Your task to perform on an android device: open app "Google Home" (install if not already installed) Image 0: 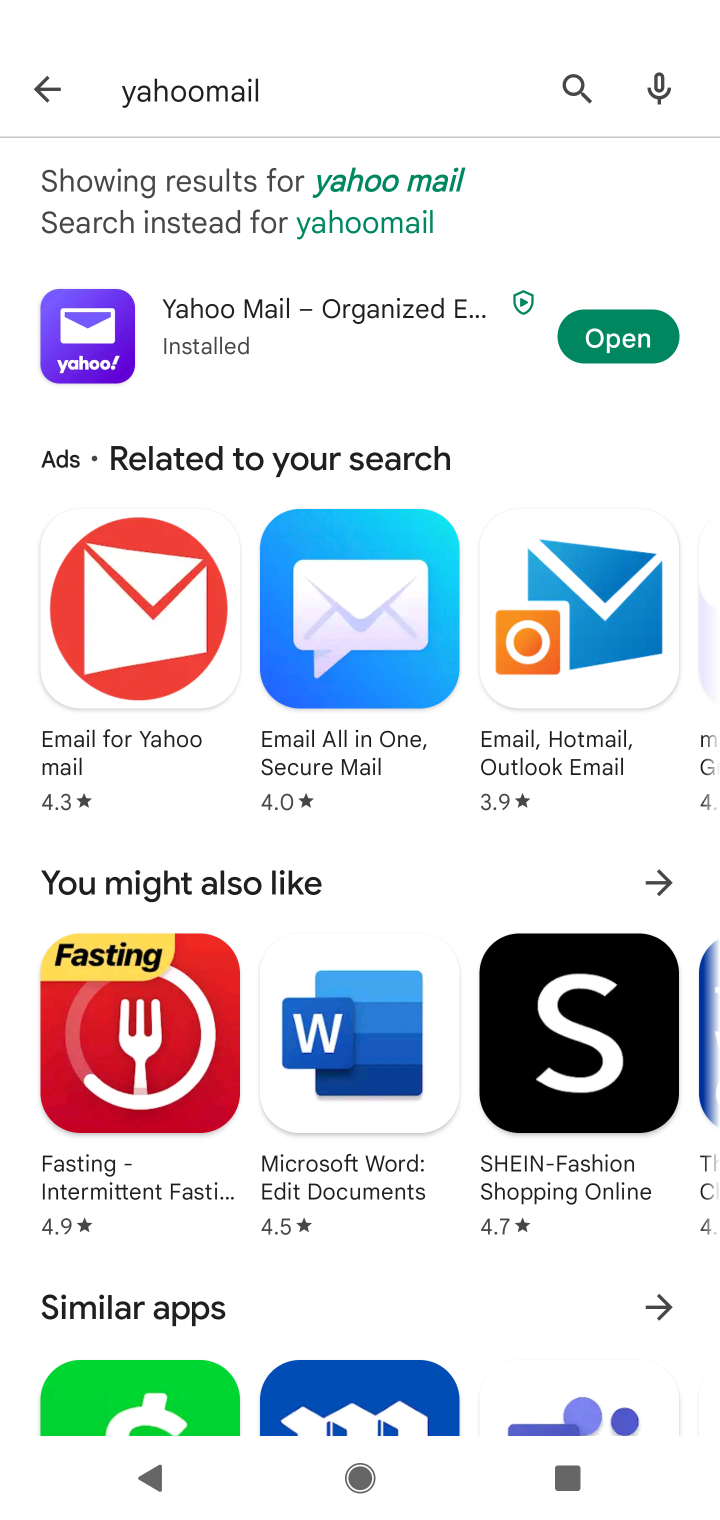
Step 0: click (513, 81)
Your task to perform on an android device: open app "Google Home" (install if not already installed) Image 1: 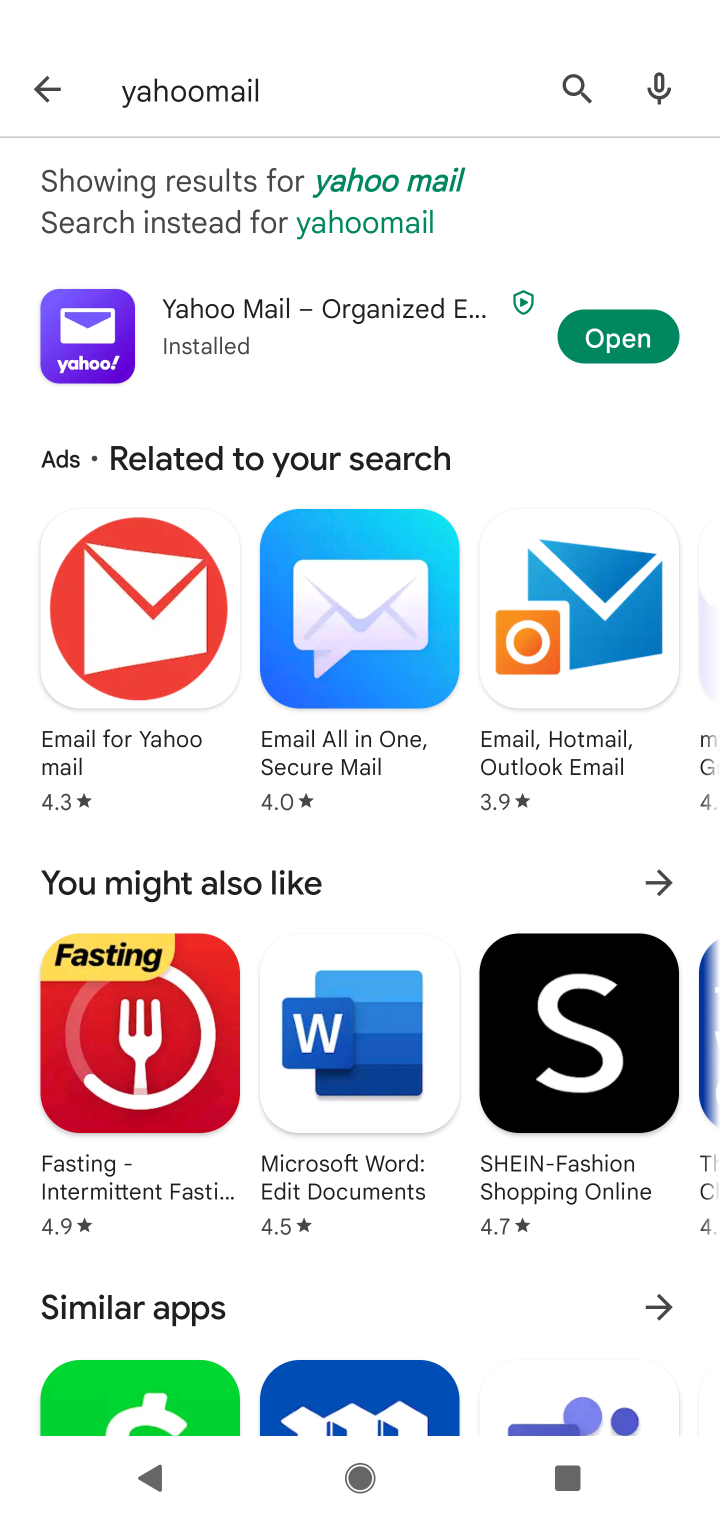
Step 1: click (544, 81)
Your task to perform on an android device: open app "Google Home" (install if not already installed) Image 2: 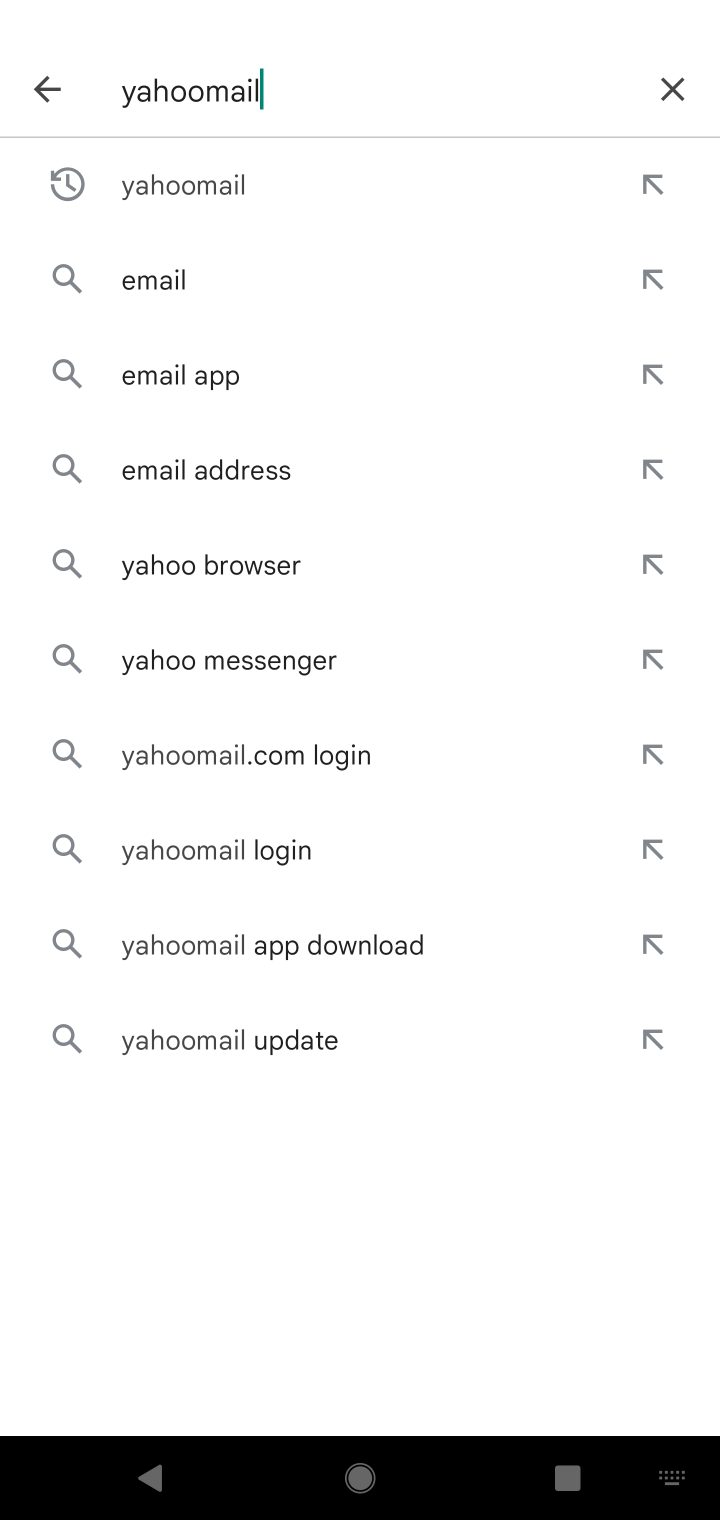
Step 2: click (569, 86)
Your task to perform on an android device: open app "Google Home" (install if not already installed) Image 3: 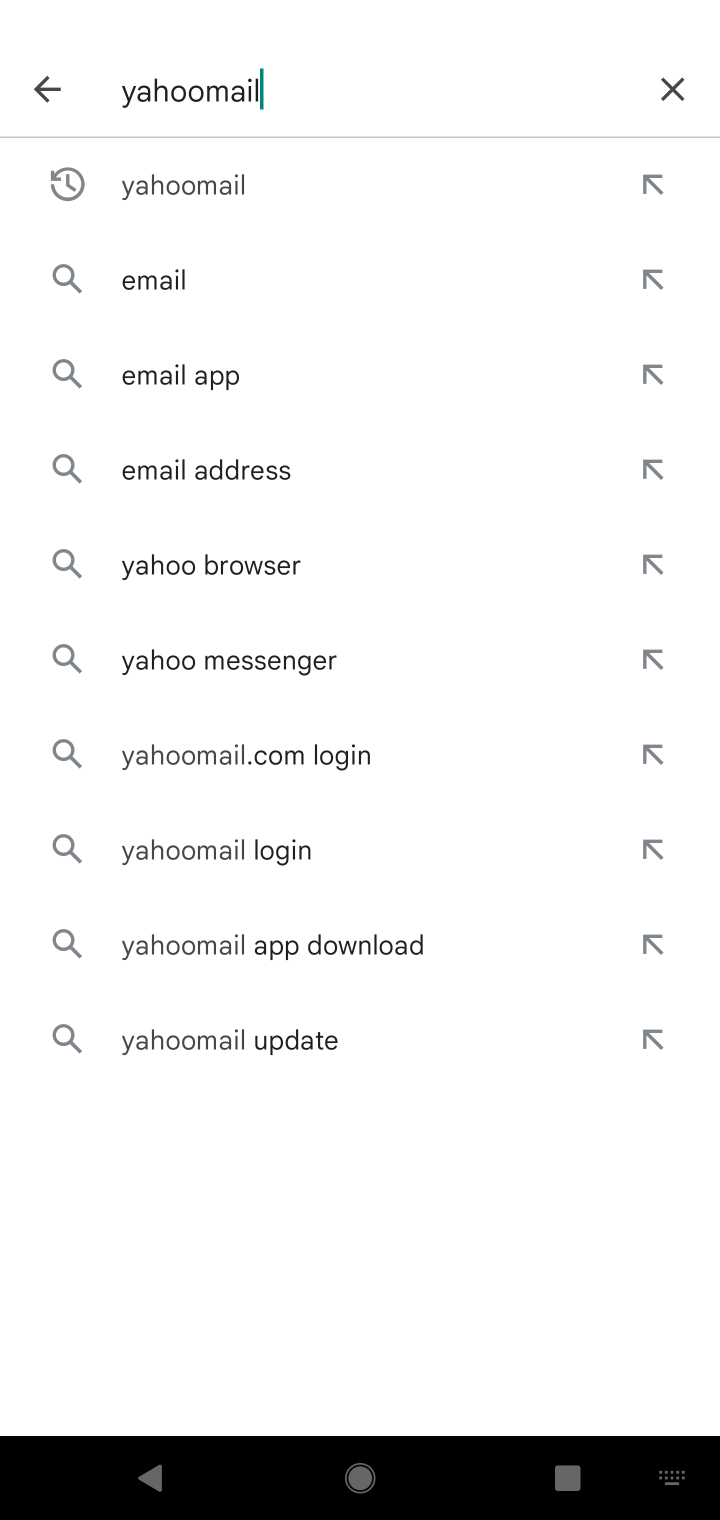
Step 3: click (654, 108)
Your task to perform on an android device: open app "Google Home" (install if not already installed) Image 4: 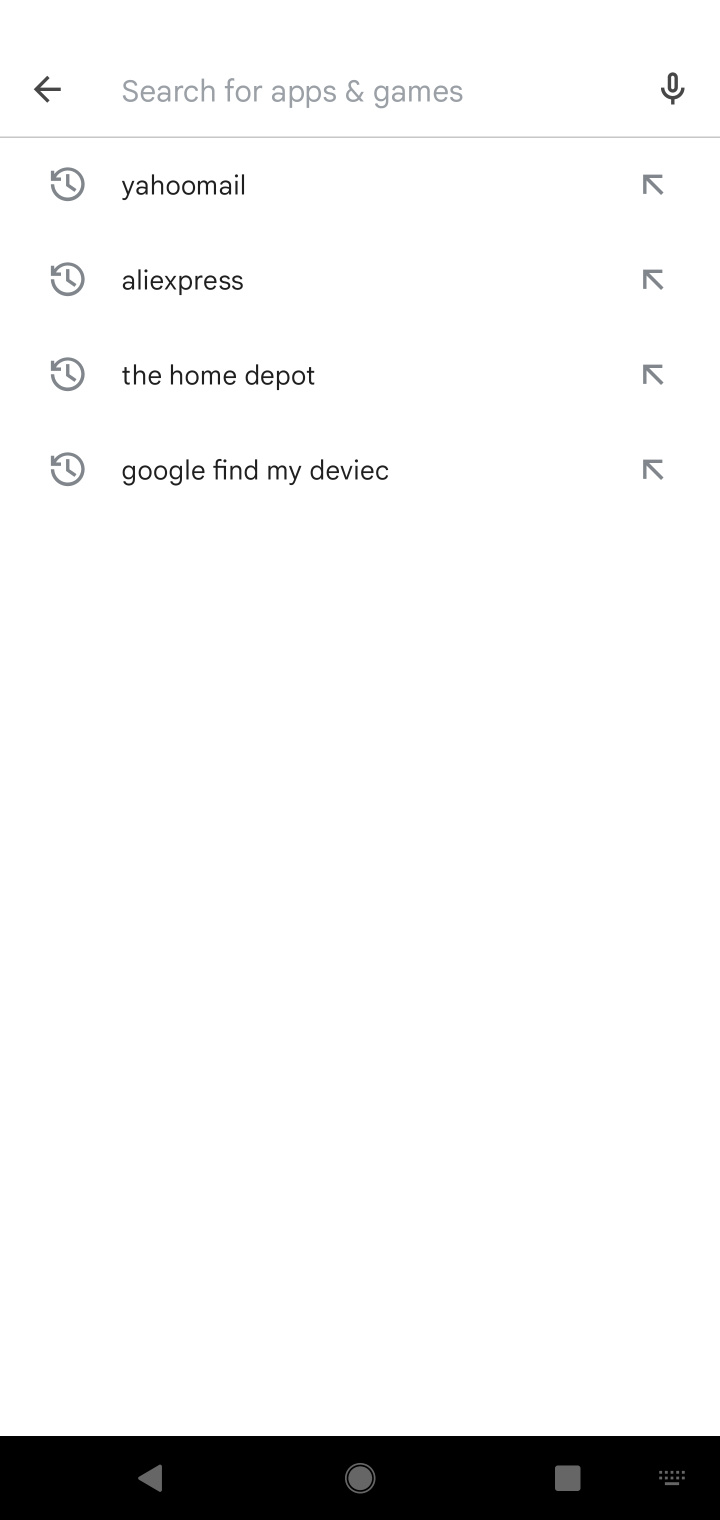
Step 4: type "google home"
Your task to perform on an android device: open app "Google Home" (install if not already installed) Image 5: 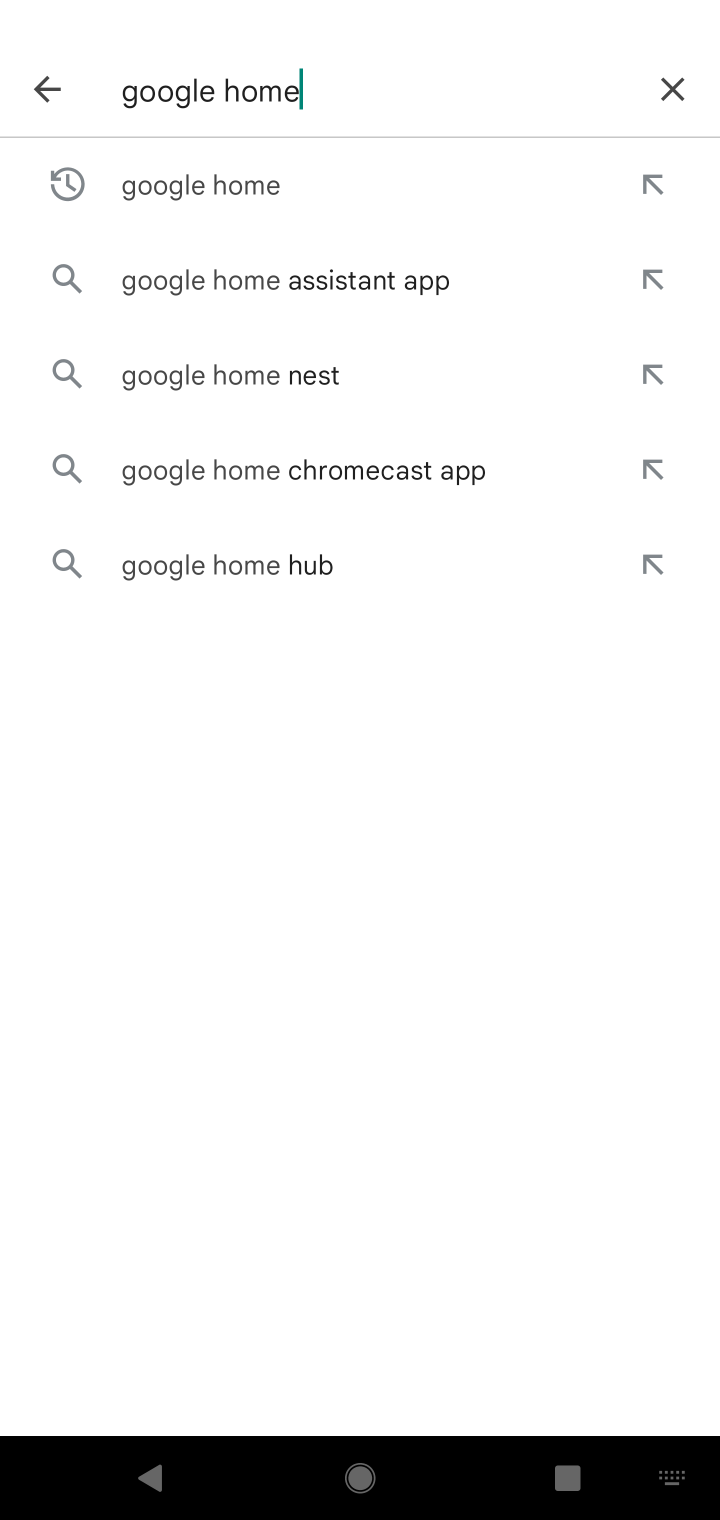
Step 5: click (301, 200)
Your task to perform on an android device: open app "Google Home" (install if not already installed) Image 6: 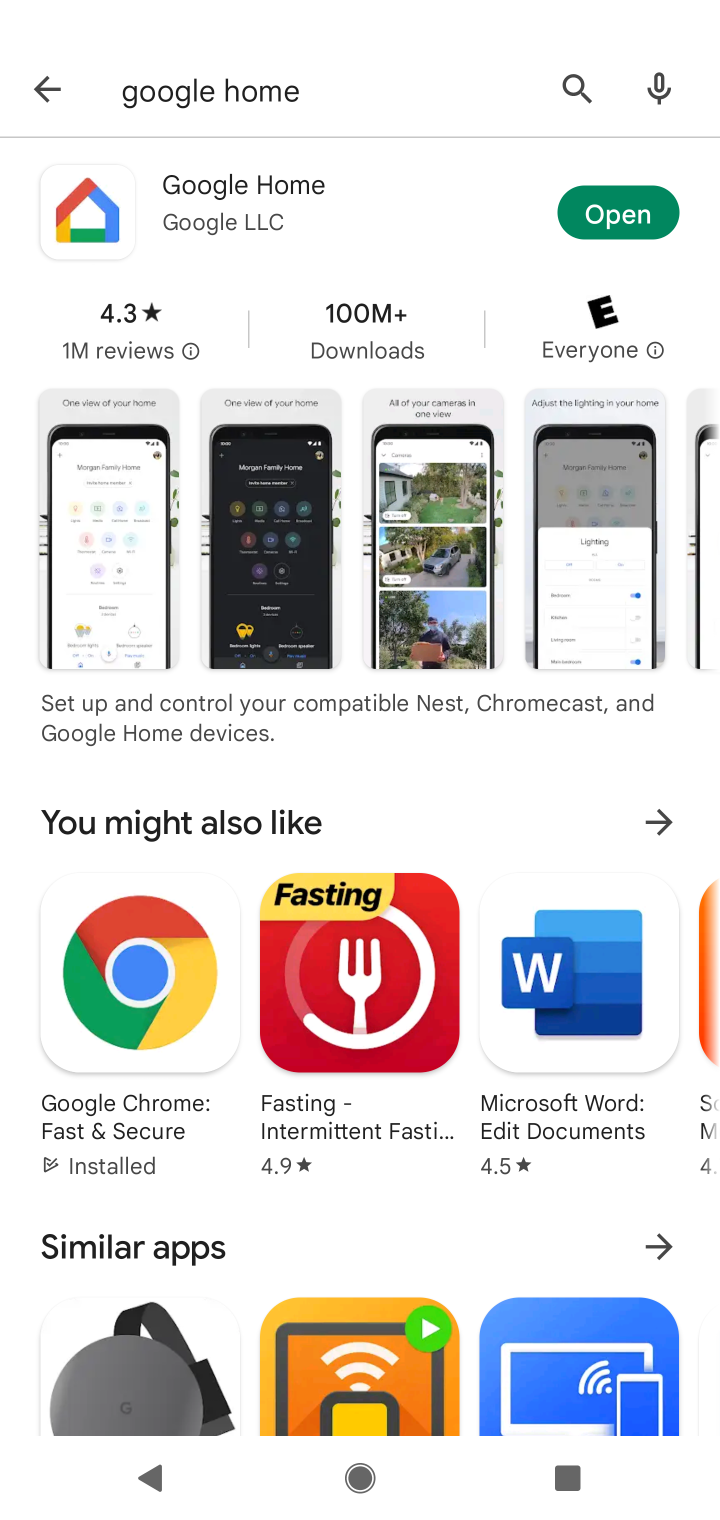
Step 6: click (620, 208)
Your task to perform on an android device: open app "Google Home" (install if not already installed) Image 7: 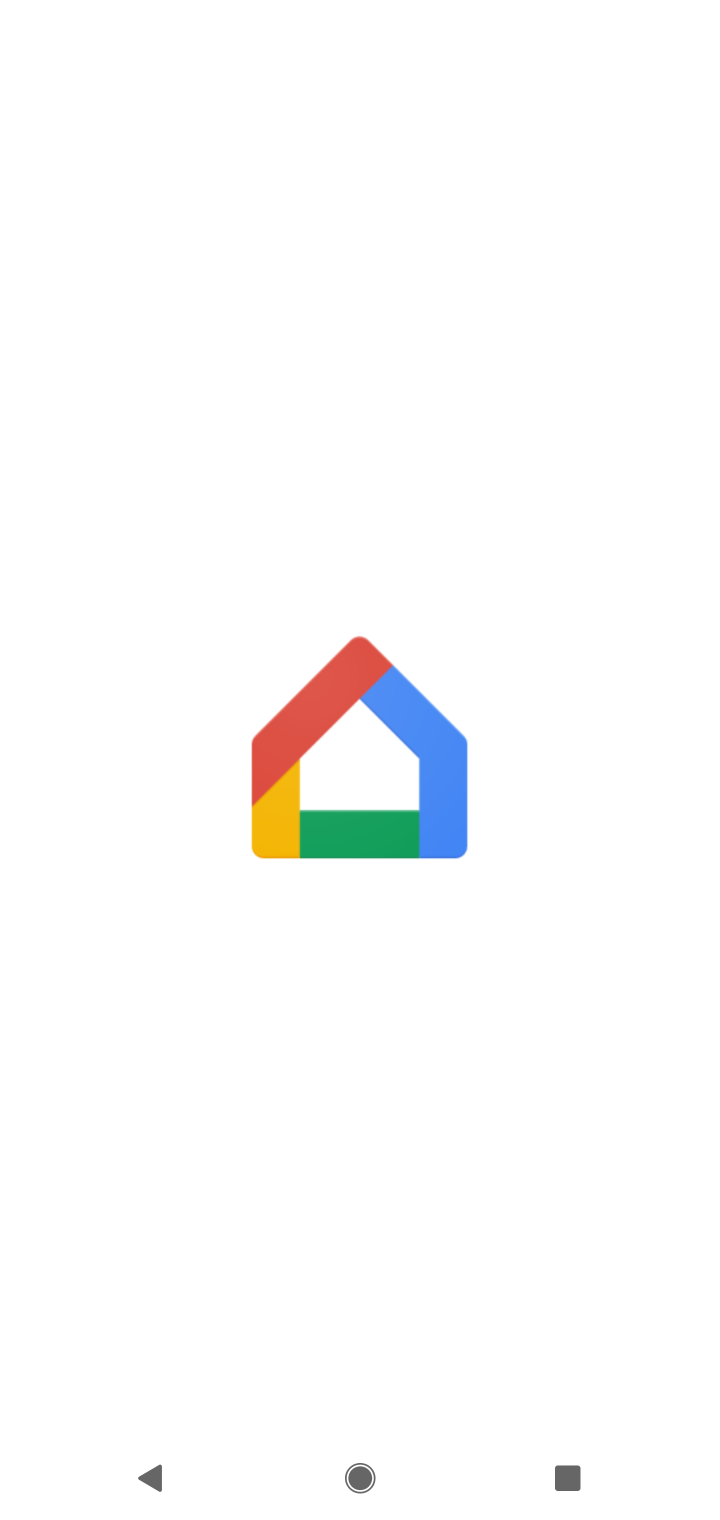
Step 7: task complete